Your task to perform on an android device: read, delete, or share a saved page in the chrome app Image 0: 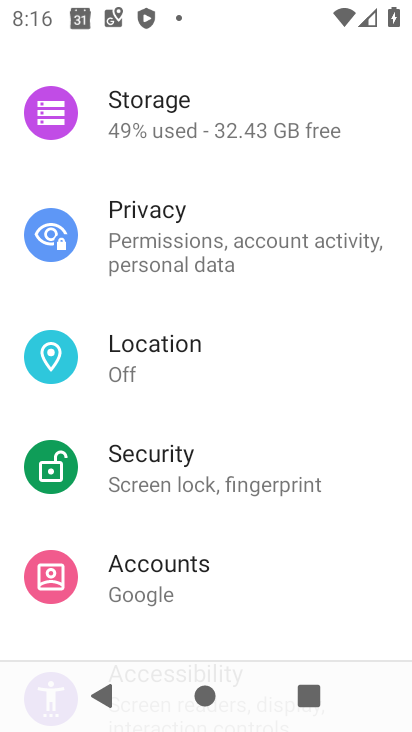
Step 0: press home button
Your task to perform on an android device: read, delete, or share a saved page in the chrome app Image 1: 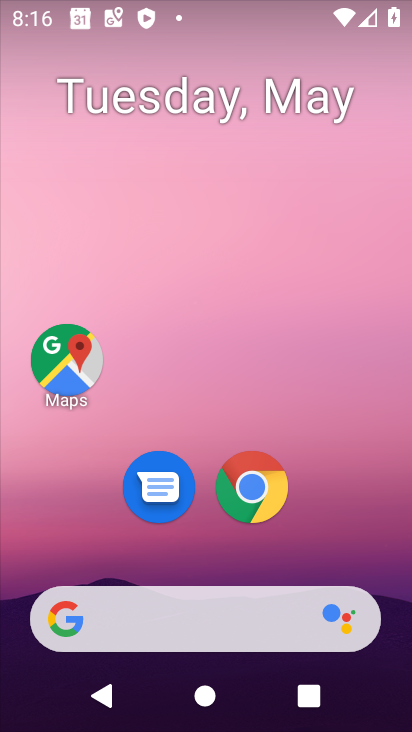
Step 1: drag from (364, 532) to (346, 300)
Your task to perform on an android device: read, delete, or share a saved page in the chrome app Image 2: 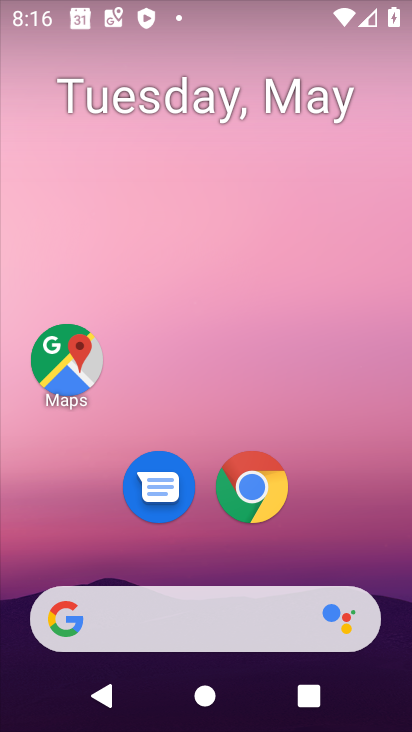
Step 2: drag from (385, 527) to (405, 138)
Your task to perform on an android device: read, delete, or share a saved page in the chrome app Image 3: 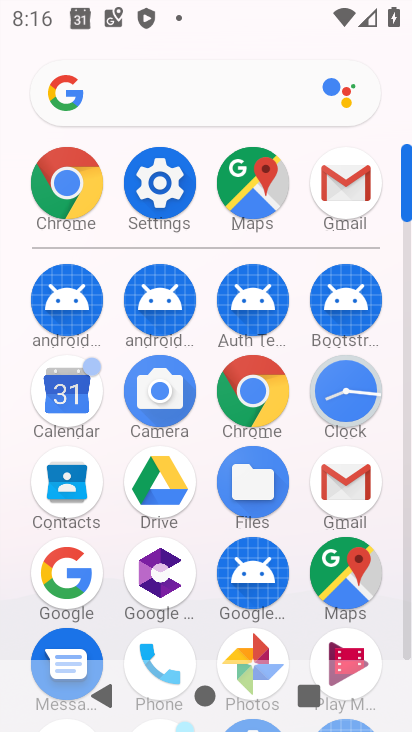
Step 3: click (266, 391)
Your task to perform on an android device: read, delete, or share a saved page in the chrome app Image 4: 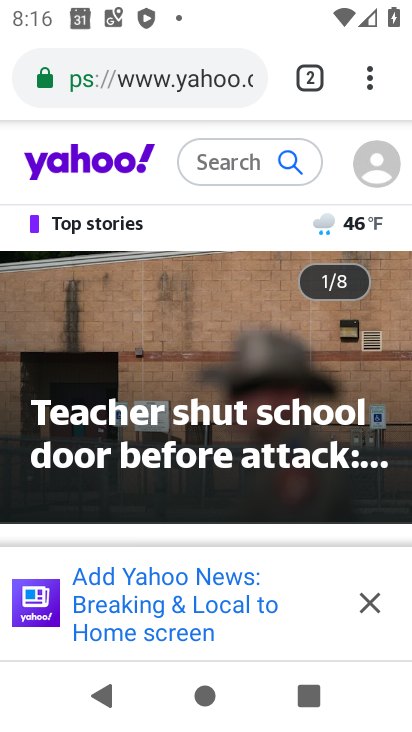
Step 4: click (371, 85)
Your task to perform on an android device: read, delete, or share a saved page in the chrome app Image 5: 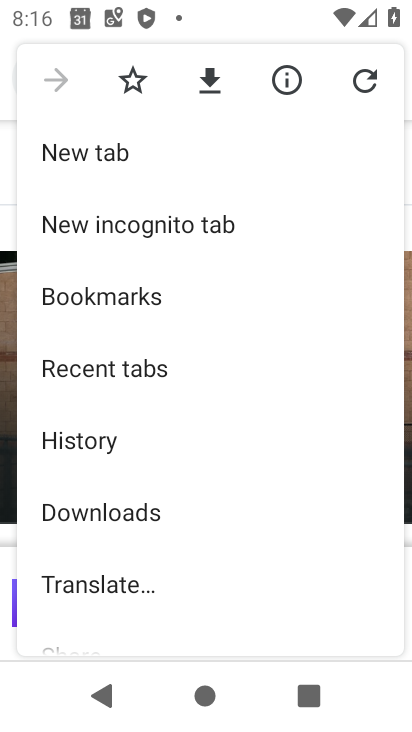
Step 5: click (176, 511)
Your task to perform on an android device: read, delete, or share a saved page in the chrome app Image 6: 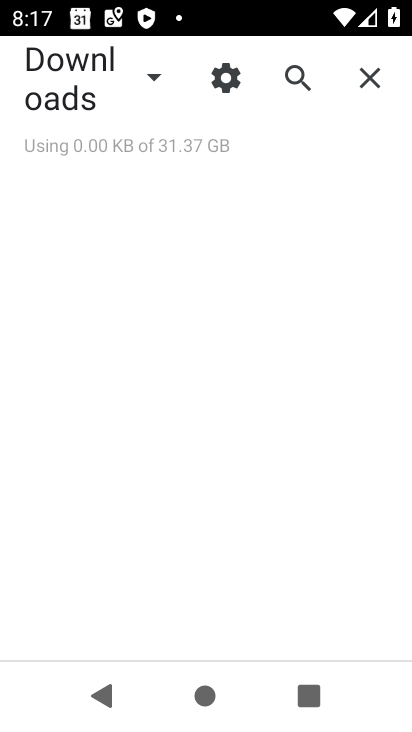
Step 6: click (154, 82)
Your task to perform on an android device: read, delete, or share a saved page in the chrome app Image 7: 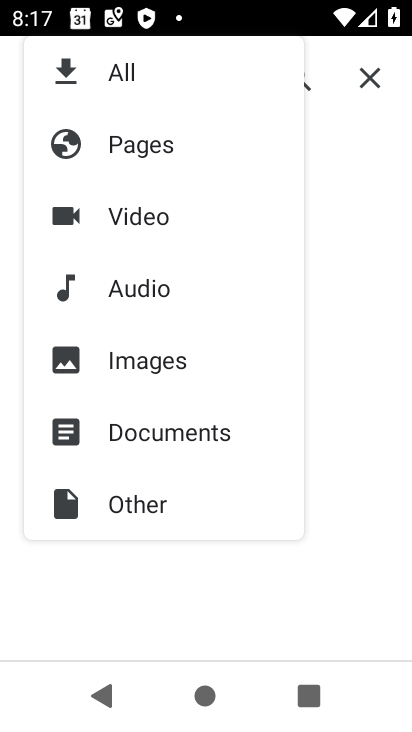
Step 7: click (155, 140)
Your task to perform on an android device: read, delete, or share a saved page in the chrome app Image 8: 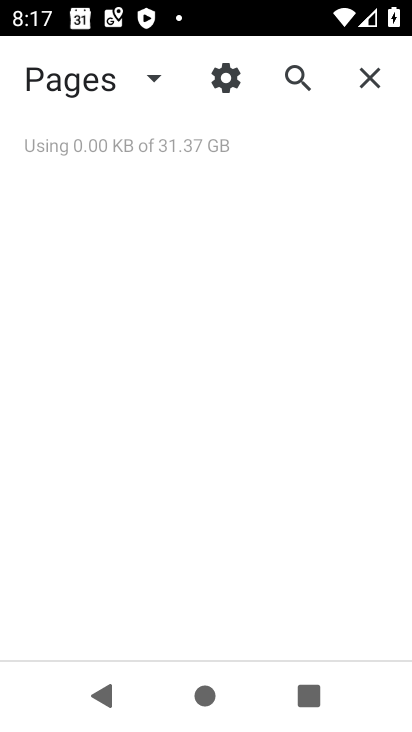
Step 8: task complete